Your task to perform on an android device: When is my next meeting? Image 0: 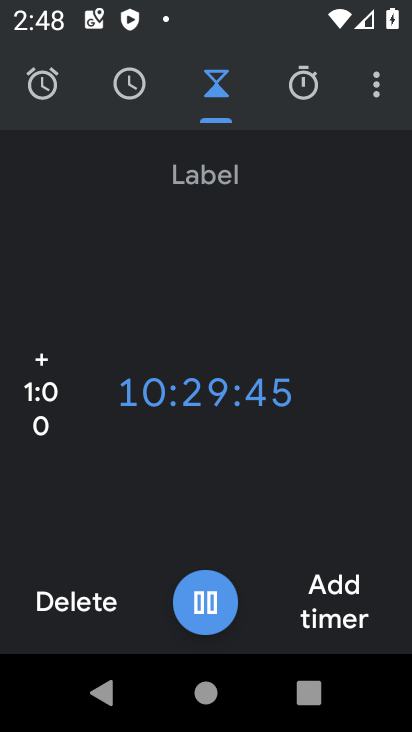
Step 0: press home button
Your task to perform on an android device: When is my next meeting? Image 1: 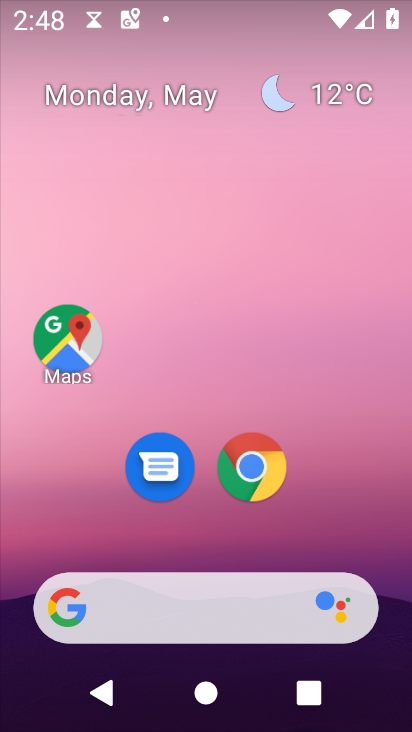
Step 1: drag from (363, 550) to (241, 1)
Your task to perform on an android device: When is my next meeting? Image 2: 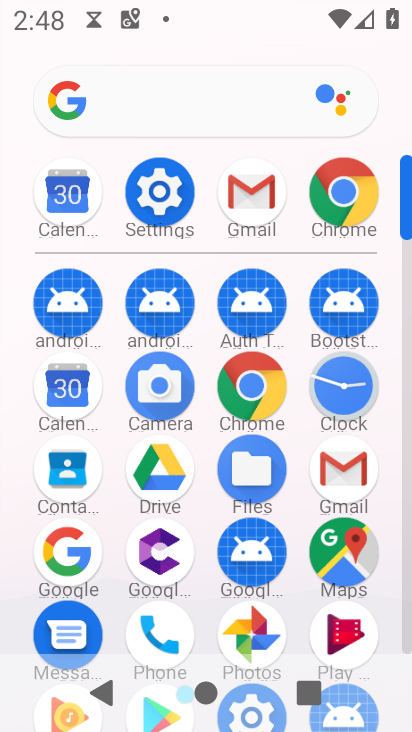
Step 2: click (73, 190)
Your task to perform on an android device: When is my next meeting? Image 3: 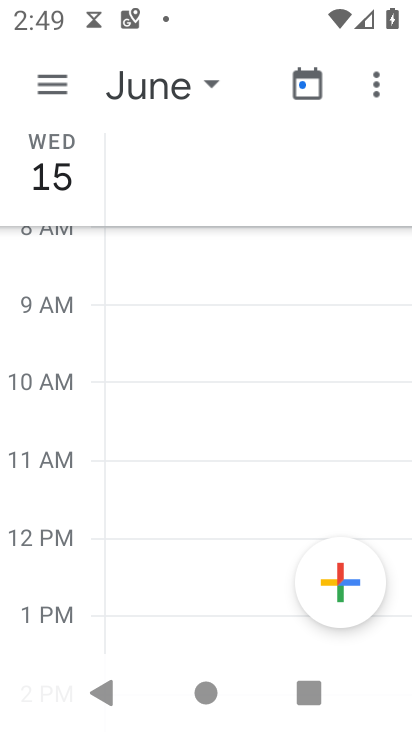
Step 3: click (50, 78)
Your task to perform on an android device: When is my next meeting? Image 4: 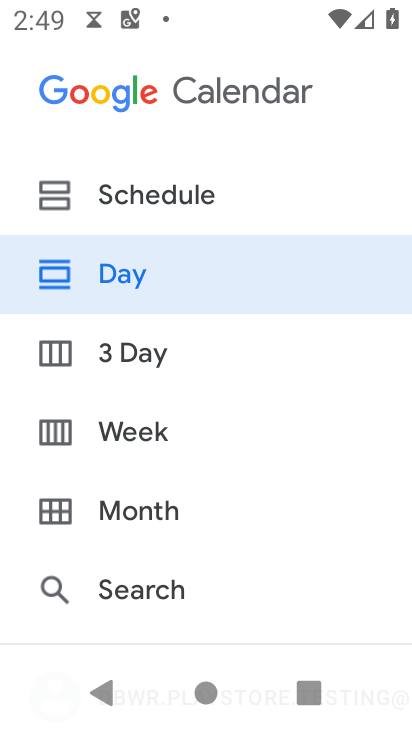
Step 4: click (148, 198)
Your task to perform on an android device: When is my next meeting? Image 5: 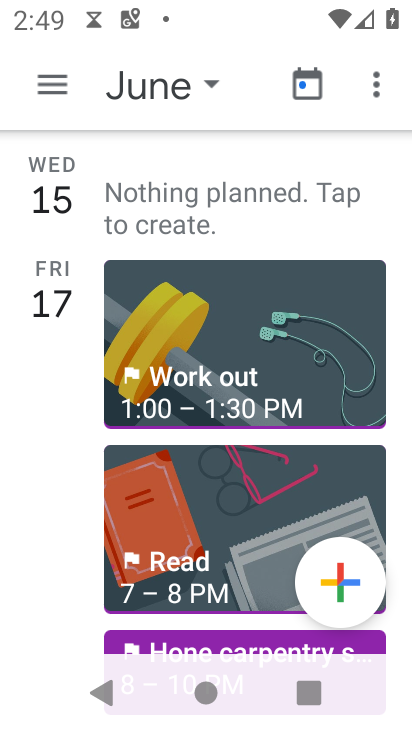
Step 5: click (153, 73)
Your task to perform on an android device: When is my next meeting? Image 6: 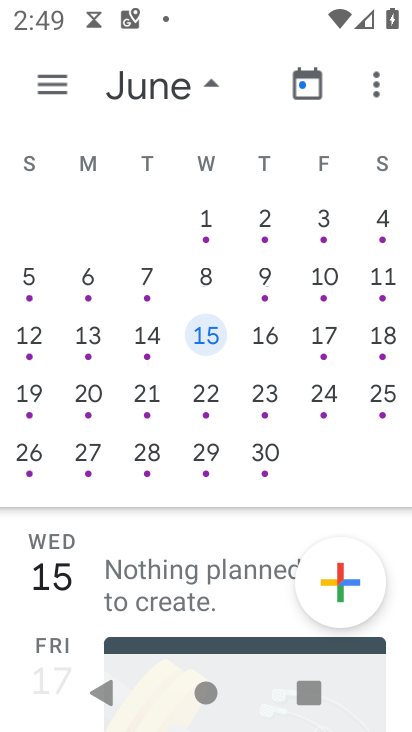
Step 6: drag from (58, 287) to (401, 287)
Your task to perform on an android device: When is my next meeting? Image 7: 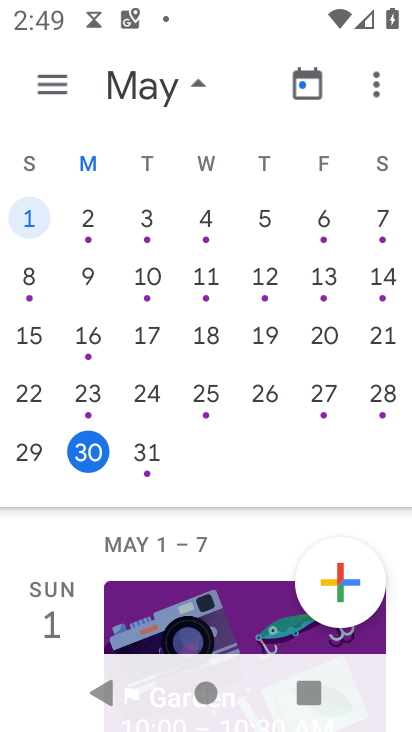
Step 7: click (95, 453)
Your task to perform on an android device: When is my next meeting? Image 8: 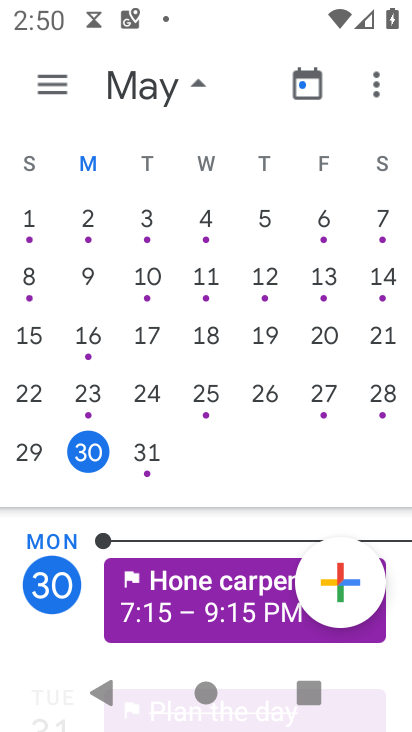
Step 8: click (187, 72)
Your task to perform on an android device: When is my next meeting? Image 9: 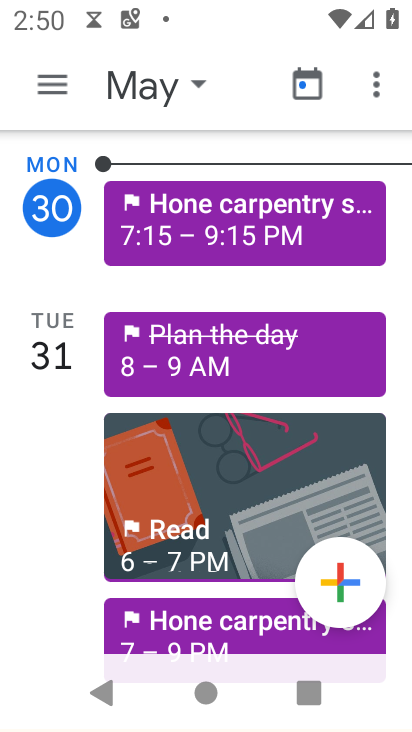
Step 9: task complete